Your task to perform on an android device: Search for razer blade on walmart.com, select the first entry, and add it to the cart. Image 0: 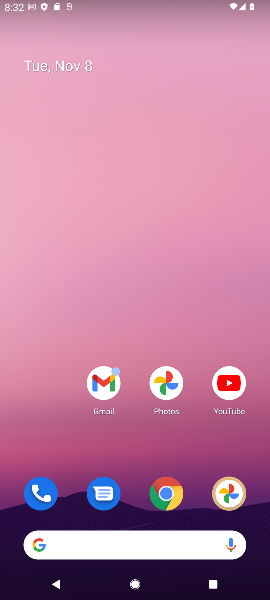
Step 0: click (170, 498)
Your task to perform on an android device: Search for razer blade on walmart.com, select the first entry, and add it to the cart. Image 1: 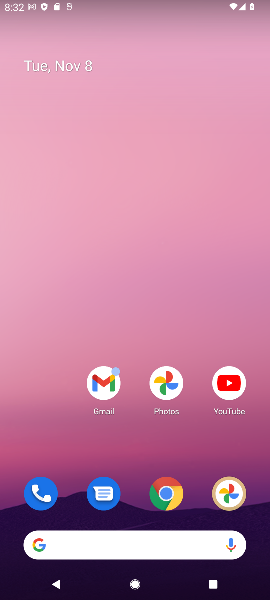
Step 1: click (170, 498)
Your task to perform on an android device: Search for razer blade on walmart.com, select the first entry, and add it to the cart. Image 2: 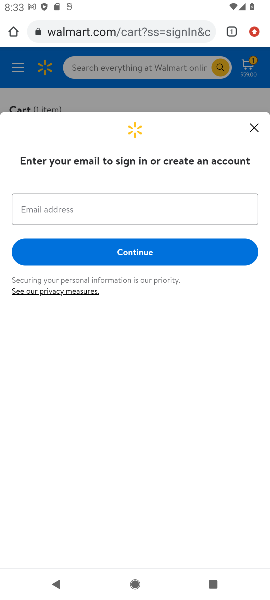
Step 2: click (255, 129)
Your task to perform on an android device: Search for razer blade on walmart.com, select the first entry, and add it to the cart. Image 3: 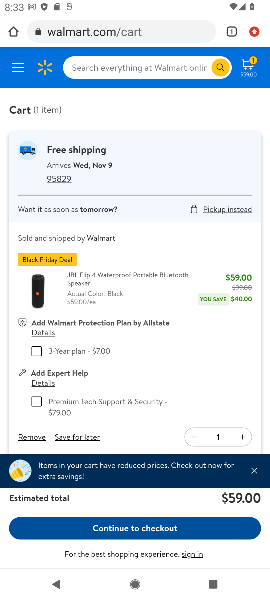
Step 3: click (132, 69)
Your task to perform on an android device: Search for razer blade on walmart.com, select the first entry, and add it to the cart. Image 4: 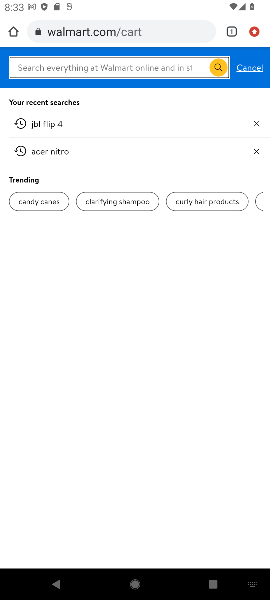
Step 4: type "razer blade"
Your task to perform on an android device: Search for razer blade on walmart.com, select the first entry, and add it to the cart. Image 5: 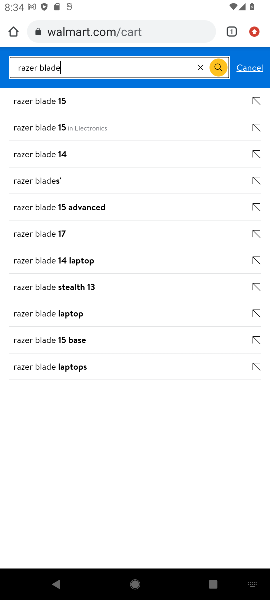
Step 5: click (37, 183)
Your task to perform on an android device: Search for razer blade on walmart.com, select the first entry, and add it to the cart. Image 6: 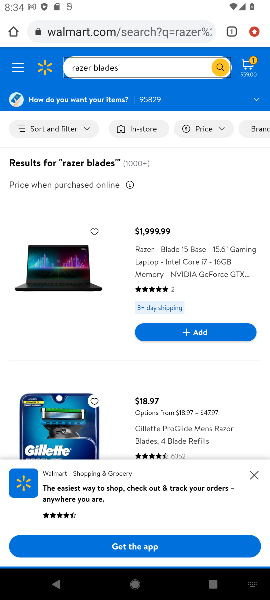
Step 6: click (67, 266)
Your task to perform on an android device: Search for razer blade on walmart.com, select the first entry, and add it to the cart. Image 7: 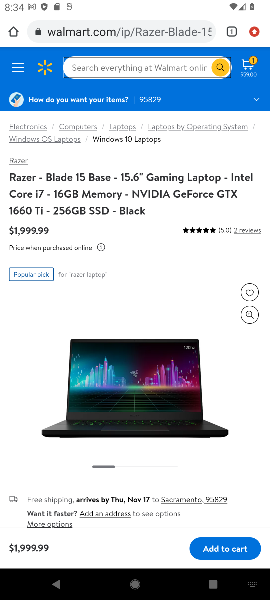
Step 7: click (229, 546)
Your task to perform on an android device: Search for razer blade on walmart.com, select the first entry, and add it to the cart. Image 8: 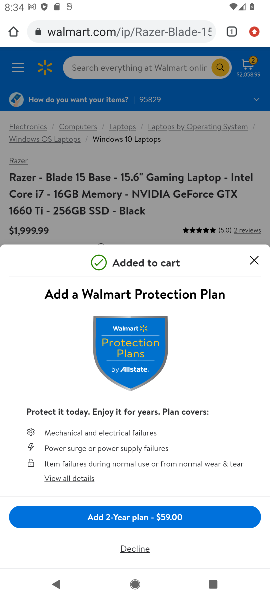
Step 8: task complete